Your task to perform on an android device: Go to Maps Image 0: 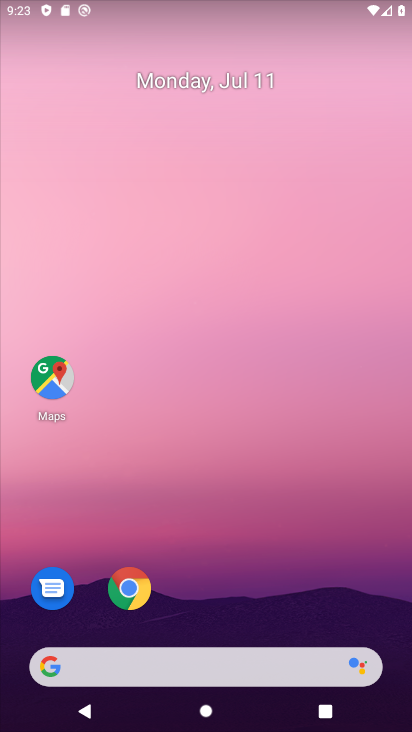
Step 0: drag from (210, 636) to (260, 107)
Your task to perform on an android device: Go to Maps Image 1: 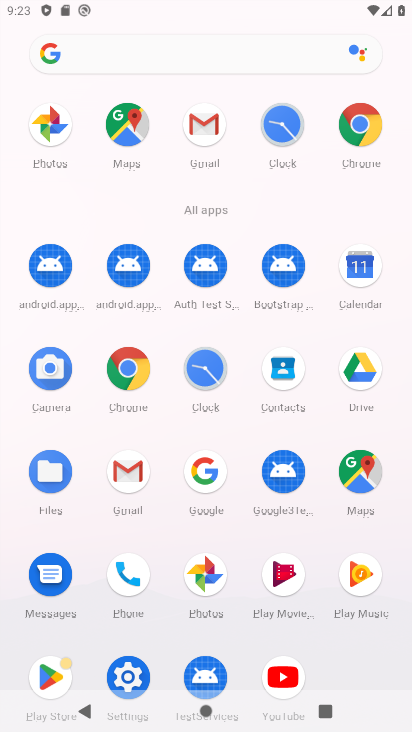
Step 1: click (360, 469)
Your task to perform on an android device: Go to Maps Image 2: 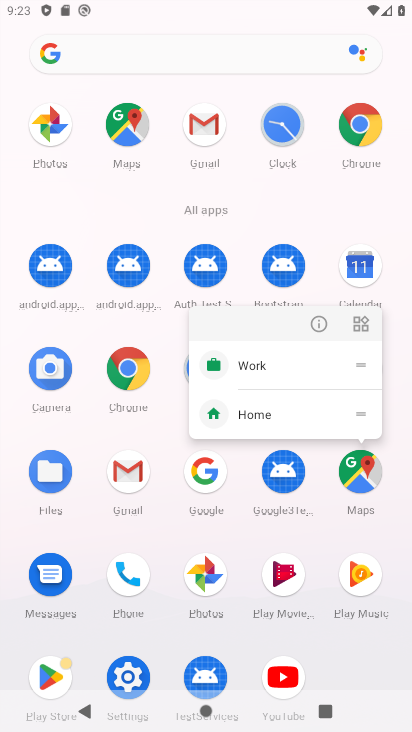
Step 2: click (356, 475)
Your task to perform on an android device: Go to Maps Image 3: 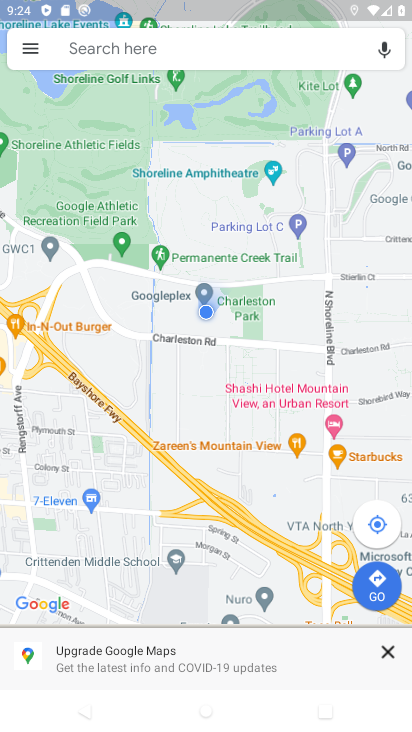
Step 3: task complete